Your task to perform on an android device: toggle javascript in the chrome app Image 0: 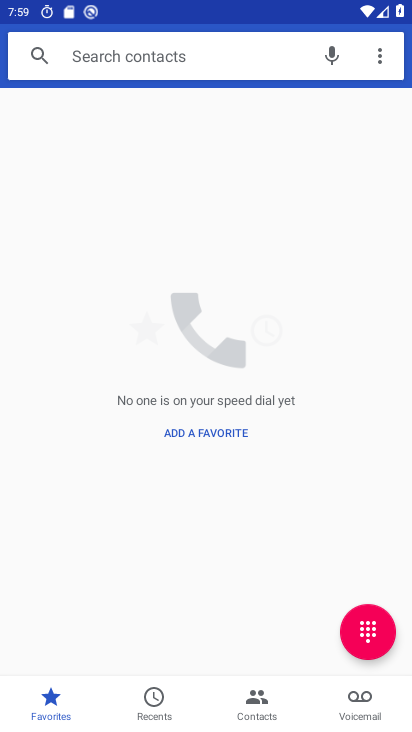
Step 0: press home button
Your task to perform on an android device: toggle javascript in the chrome app Image 1: 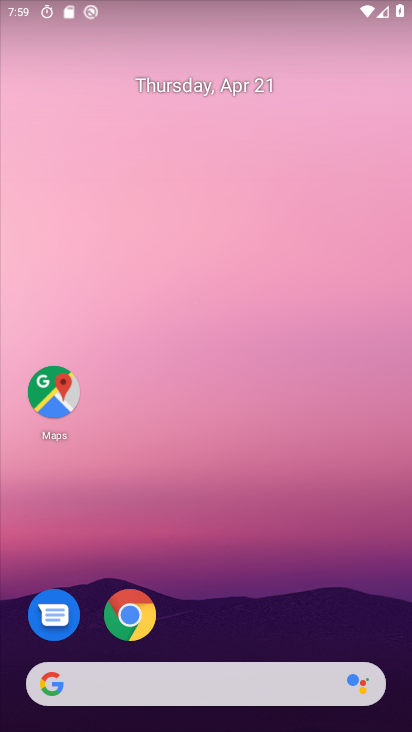
Step 1: drag from (167, 686) to (295, 233)
Your task to perform on an android device: toggle javascript in the chrome app Image 2: 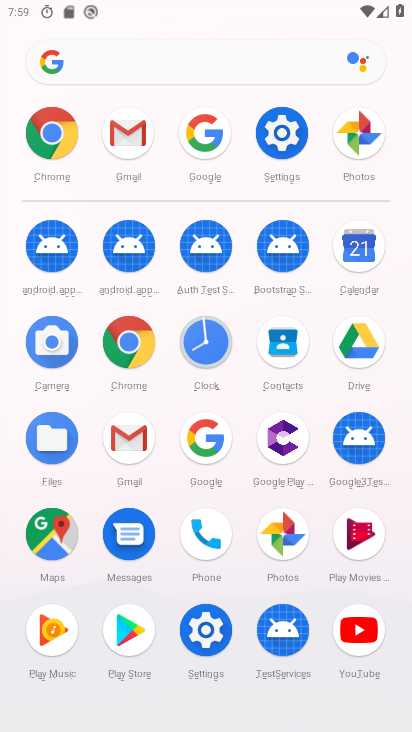
Step 2: click (59, 138)
Your task to perform on an android device: toggle javascript in the chrome app Image 3: 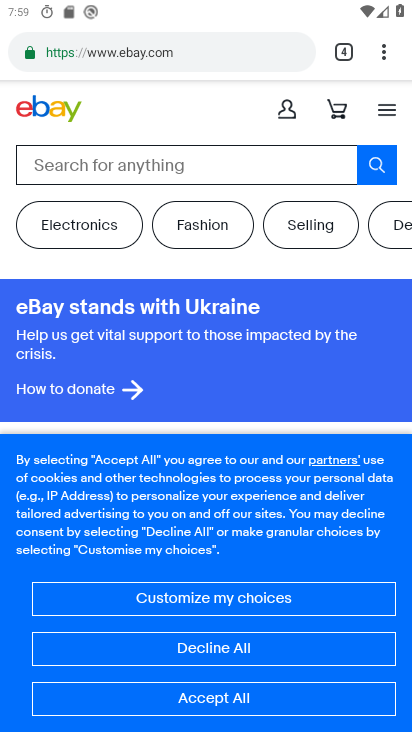
Step 3: click (377, 64)
Your task to perform on an android device: toggle javascript in the chrome app Image 4: 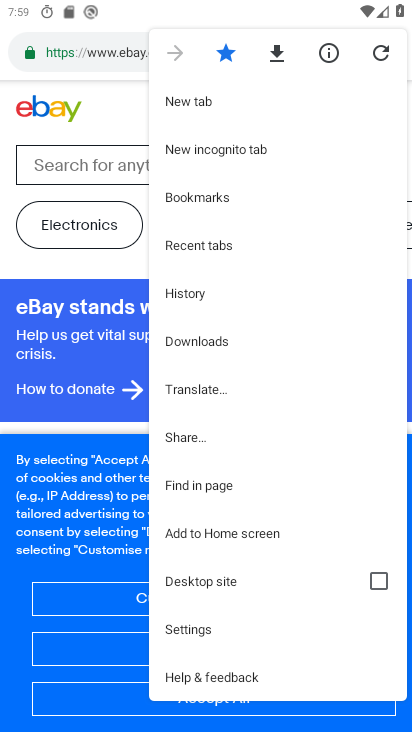
Step 4: click (185, 626)
Your task to perform on an android device: toggle javascript in the chrome app Image 5: 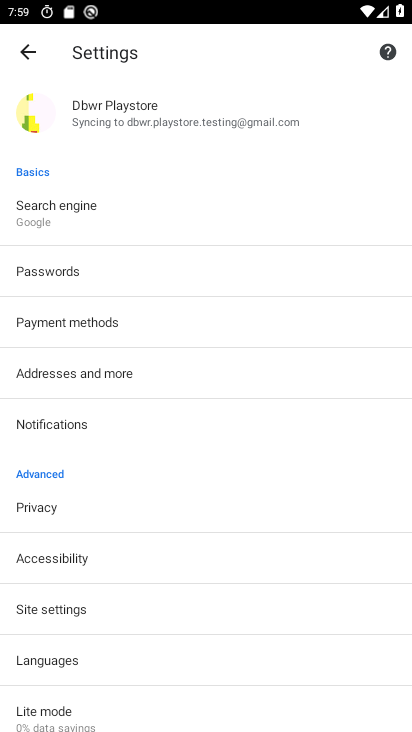
Step 5: click (154, 617)
Your task to perform on an android device: toggle javascript in the chrome app Image 6: 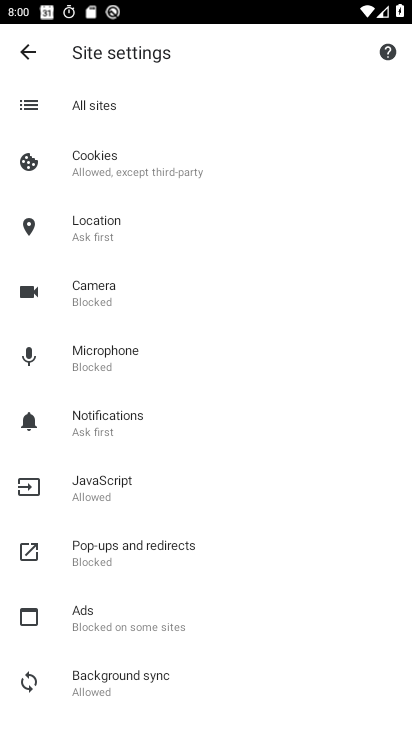
Step 6: click (105, 492)
Your task to perform on an android device: toggle javascript in the chrome app Image 7: 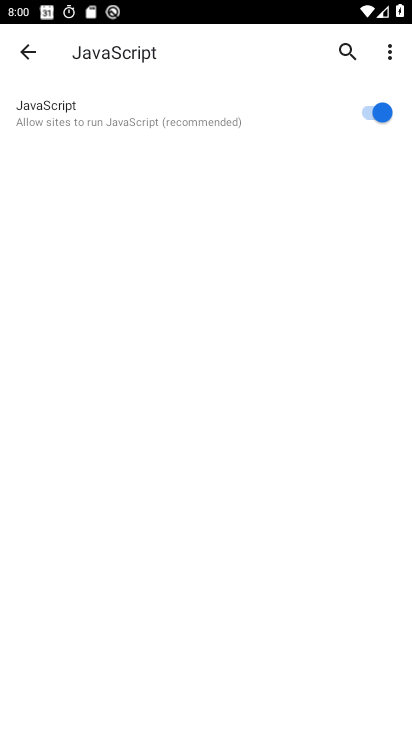
Step 7: click (370, 112)
Your task to perform on an android device: toggle javascript in the chrome app Image 8: 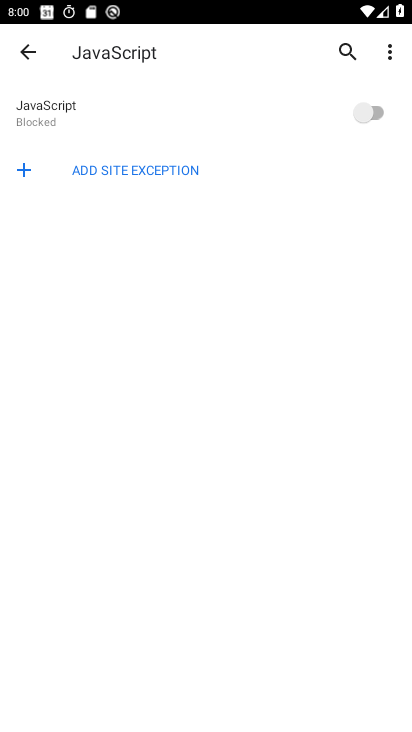
Step 8: task complete